Your task to perform on an android device: toggle sleep mode Image 0: 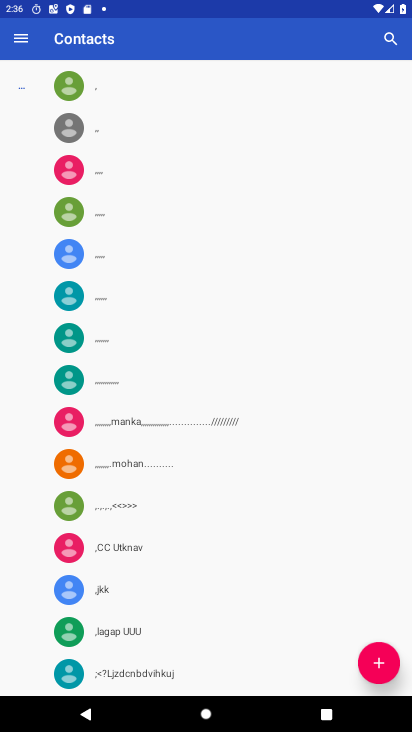
Step 0: drag from (255, 615) to (352, 588)
Your task to perform on an android device: toggle sleep mode Image 1: 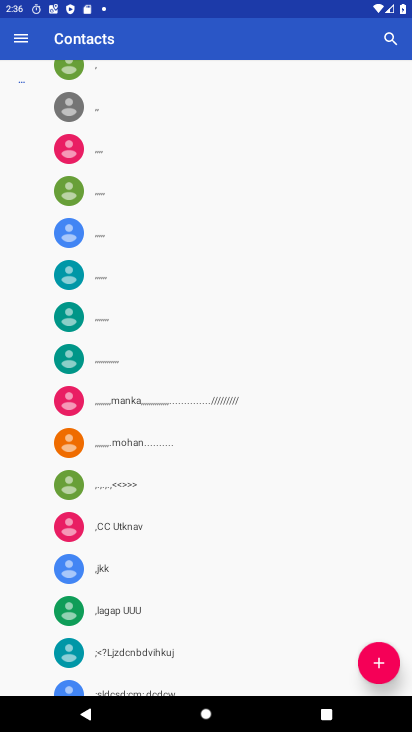
Step 1: press home button
Your task to perform on an android device: toggle sleep mode Image 2: 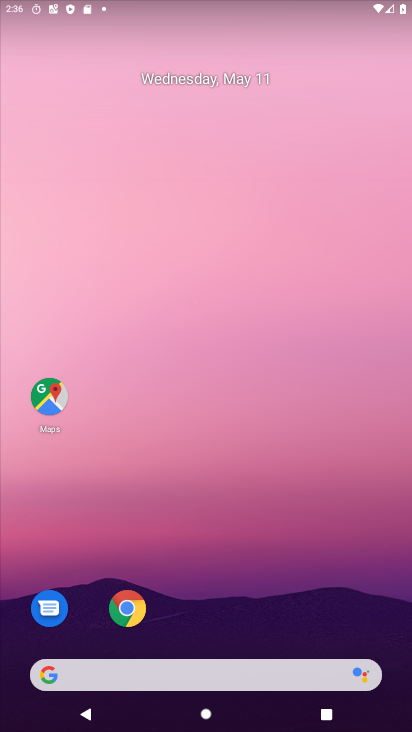
Step 2: drag from (268, 605) to (309, 157)
Your task to perform on an android device: toggle sleep mode Image 3: 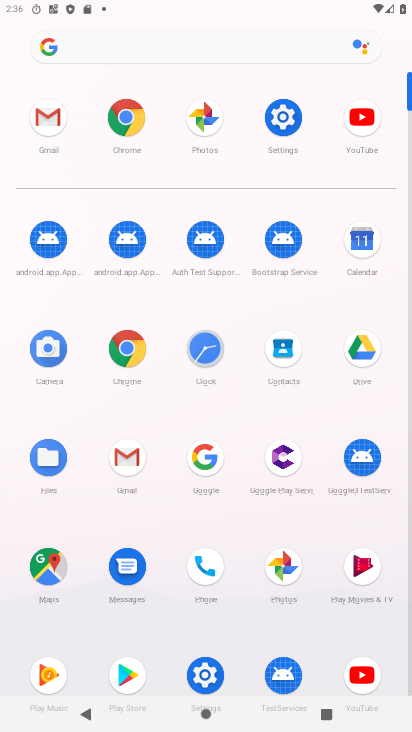
Step 3: click (279, 114)
Your task to perform on an android device: toggle sleep mode Image 4: 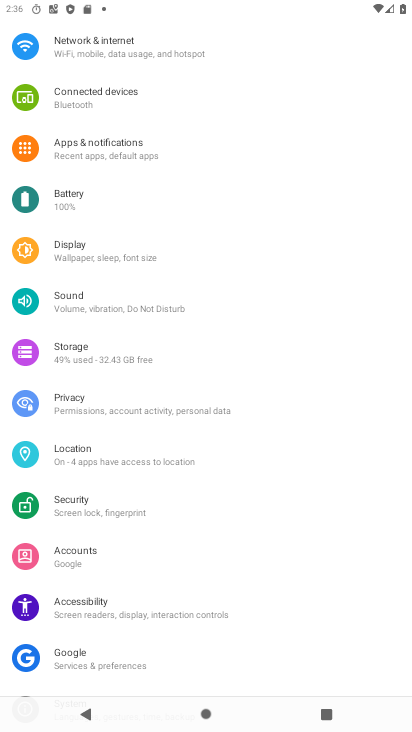
Step 4: click (99, 243)
Your task to perform on an android device: toggle sleep mode Image 5: 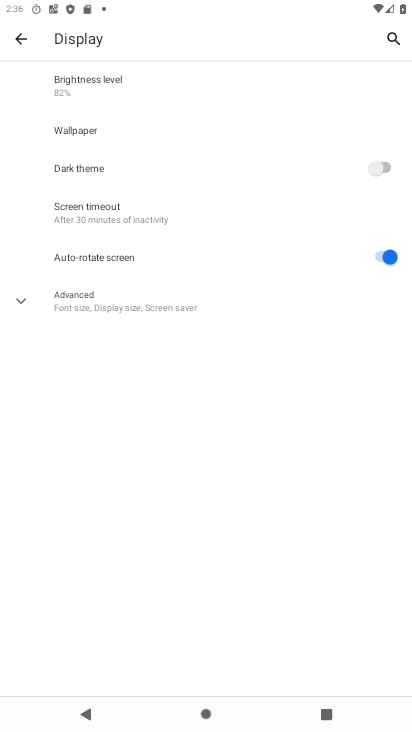
Step 5: task complete